Your task to perform on an android device: What's on my calendar tomorrow? Image 0: 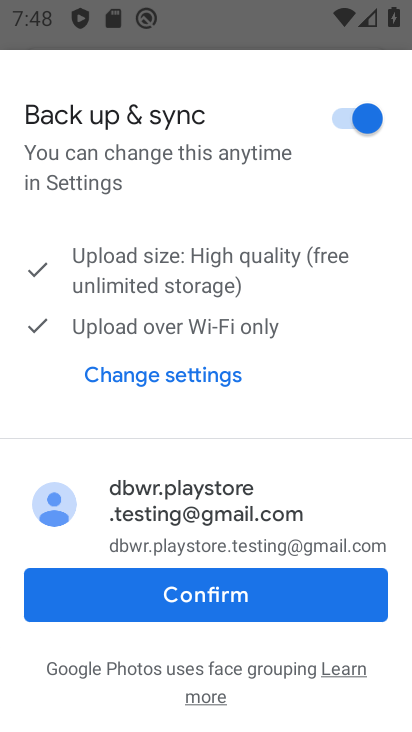
Step 0: press home button
Your task to perform on an android device: What's on my calendar tomorrow? Image 1: 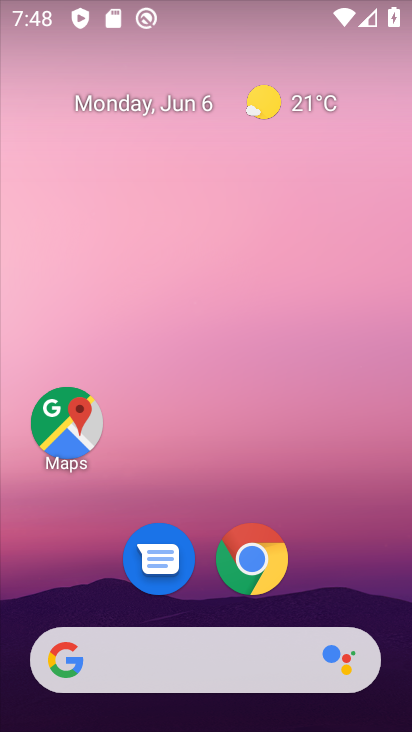
Step 1: drag from (240, 722) to (241, 121)
Your task to perform on an android device: What's on my calendar tomorrow? Image 2: 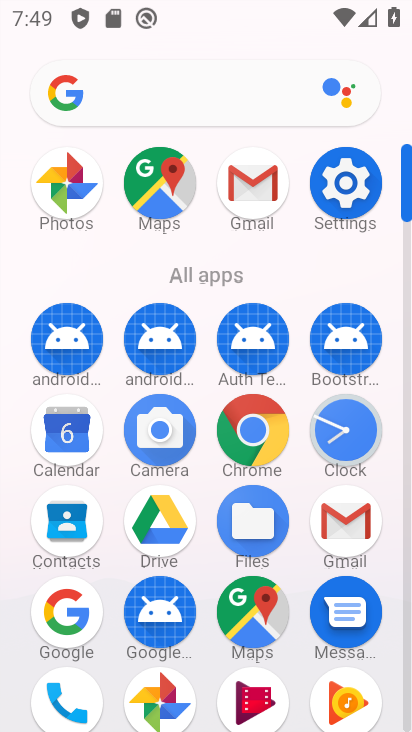
Step 2: click (67, 439)
Your task to perform on an android device: What's on my calendar tomorrow? Image 3: 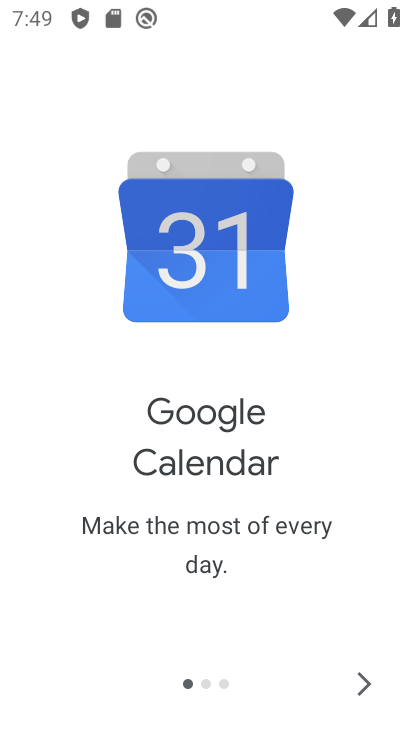
Step 3: click (364, 680)
Your task to perform on an android device: What's on my calendar tomorrow? Image 4: 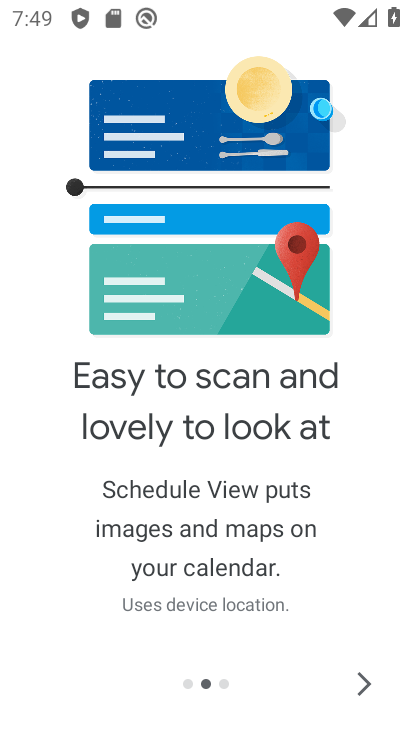
Step 4: click (364, 685)
Your task to perform on an android device: What's on my calendar tomorrow? Image 5: 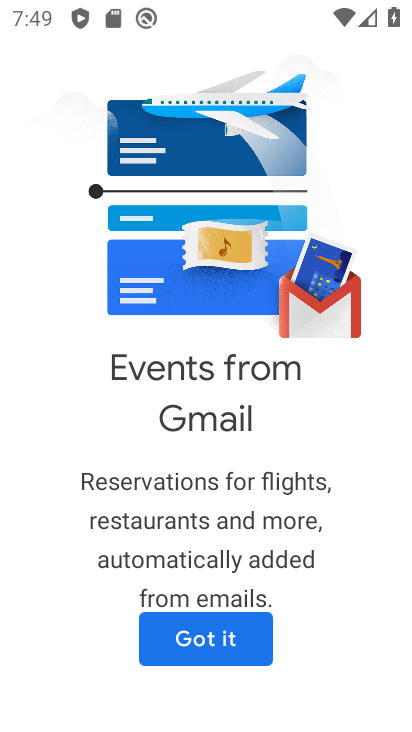
Step 5: click (205, 629)
Your task to perform on an android device: What's on my calendar tomorrow? Image 6: 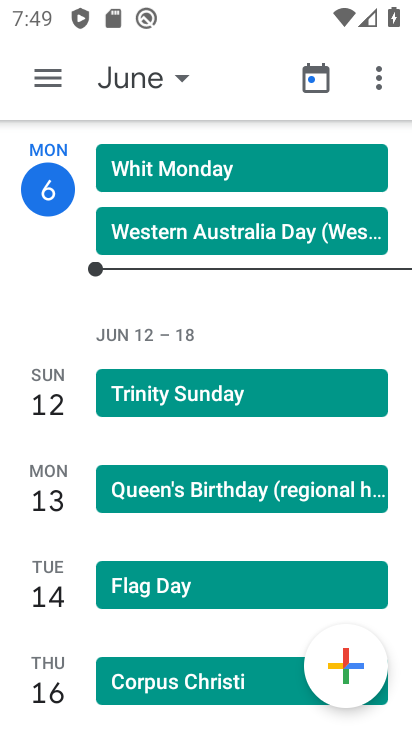
Step 6: click (181, 80)
Your task to perform on an android device: What's on my calendar tomorrow? Image 7: 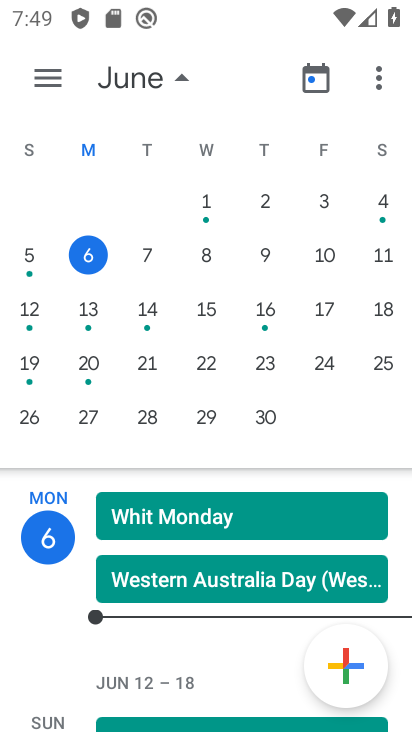
Step 7: click (146, 256)
Your task to perform on an android device: What's on my calendar tomorrow? Image 8: 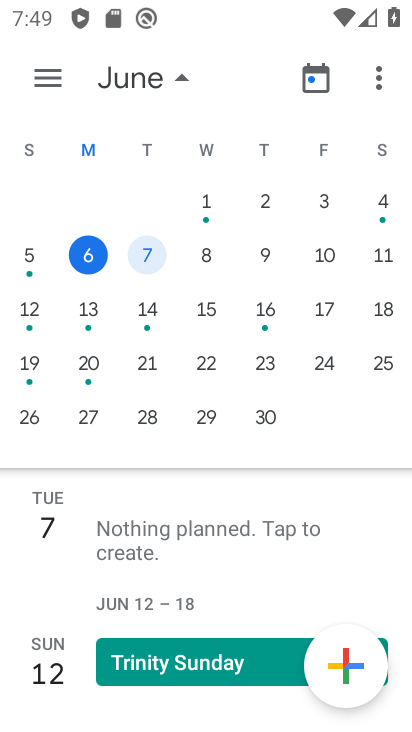
Step 8: click (146, 256)
Your task to perform on an android device: What's on my calendar tomorrow? Image 9: 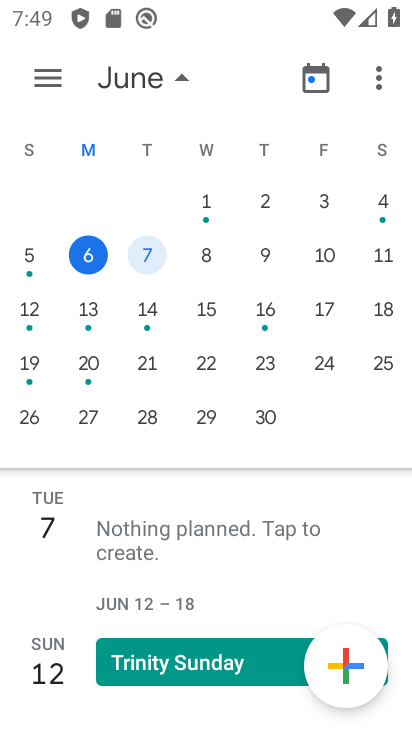
Step 9: click (146, 256)
Your task to perform on an android device: What's on my calendar tomorrow? Image 10: 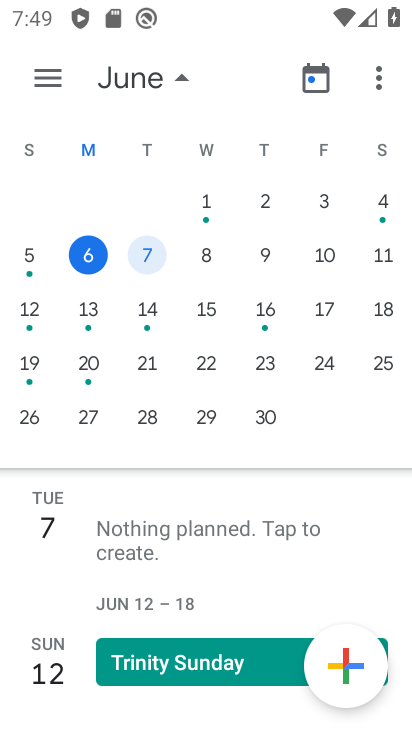
Step 10: click (146, 256)
Your task to perform on an android device: What's on my calendar tomorrow? Image 11: 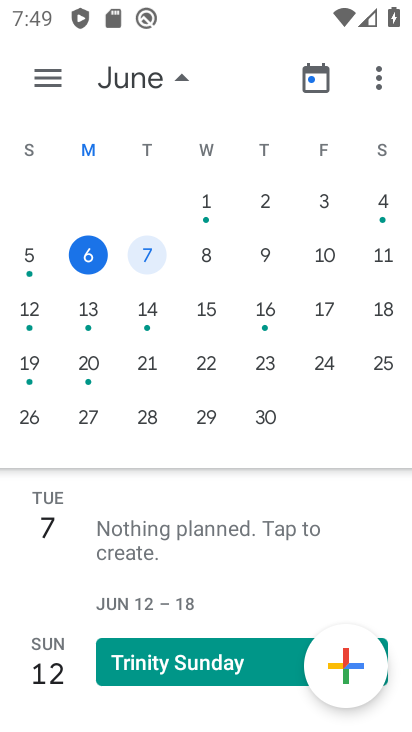
Step 11: task complete